Your task to perform on an android device: change the clock display to show seconds Image 0: 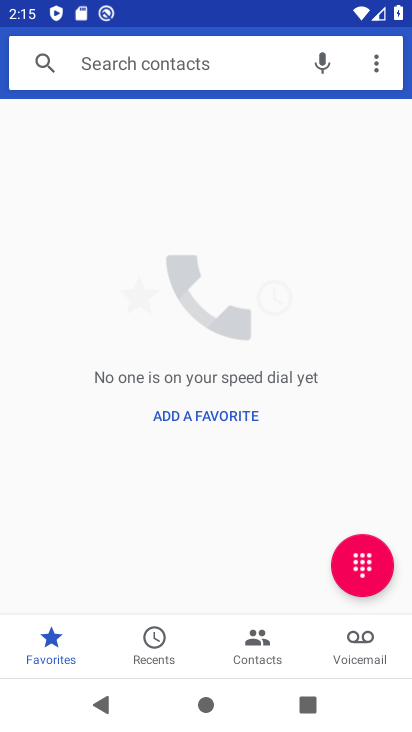
Step 0: press home button
Your task to perform on an android device: change the clock display to show seconds Image 1: 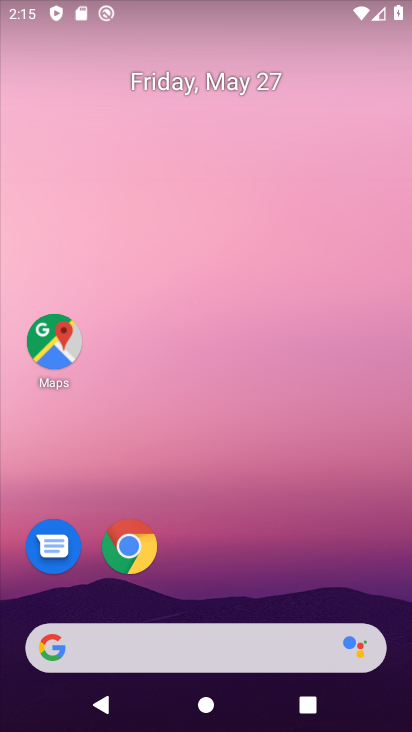
Step 1: drag from (190, 555) to (238, 192)
Your task to perform on an android device: change the clock display to show seconds Image 2: 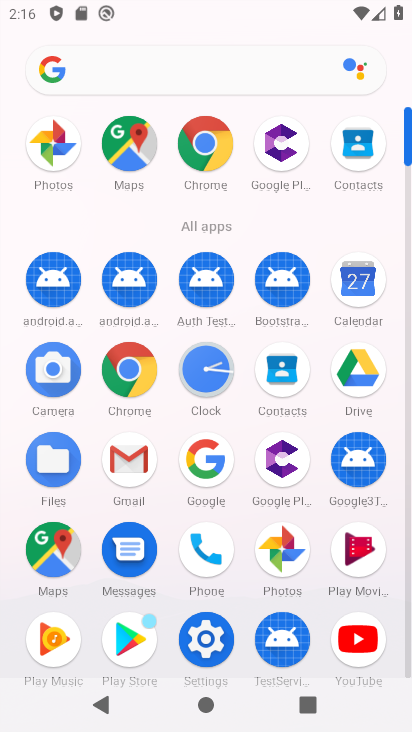
Step 2: click (214, 373)
Your task to perform on an android device: change the clock display to show seconds Image 3: 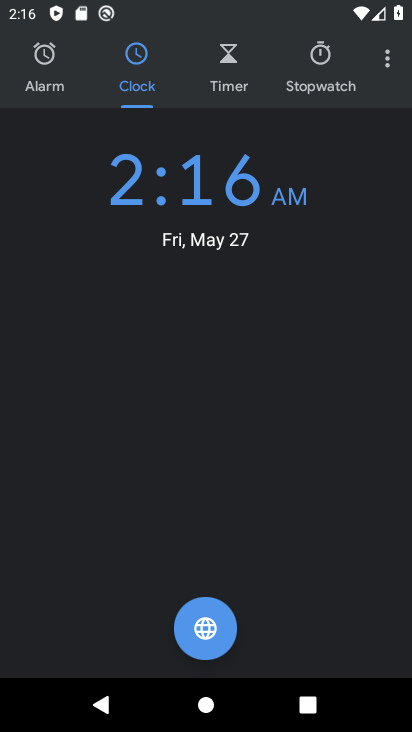
Step 3: click (381, 61)
Your task to perform on an android device: change the clock display to show seconds Image 4: 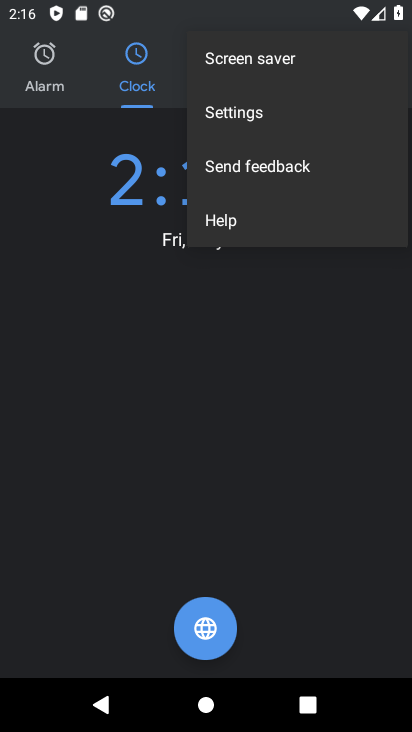
Step 4: click (247, 114)
Your task to perform on an android device: change the clock display to show seconds Image 5: 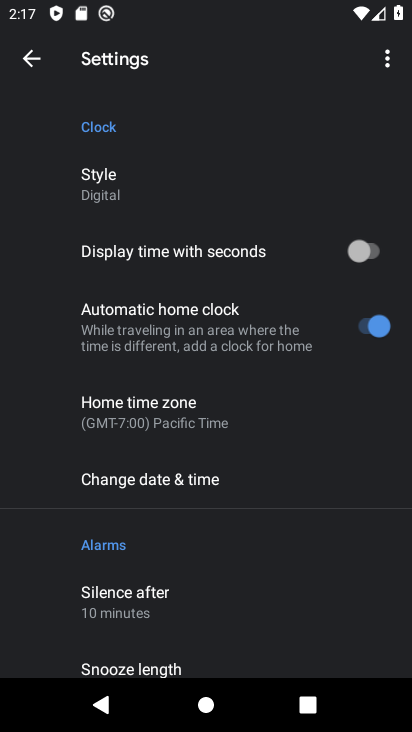
Step 5: click (364, 256)
Your task to perform on an android device: change the clock display to show seconds Image 6: 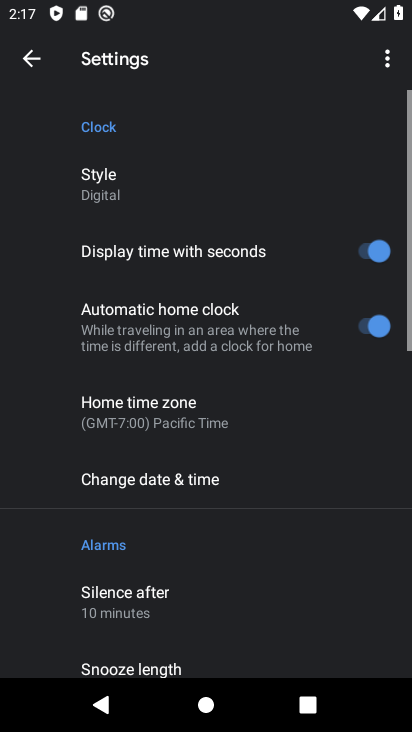
Step 6: task complete